Your task to perform on an android device: turn notification dots on Image 0: 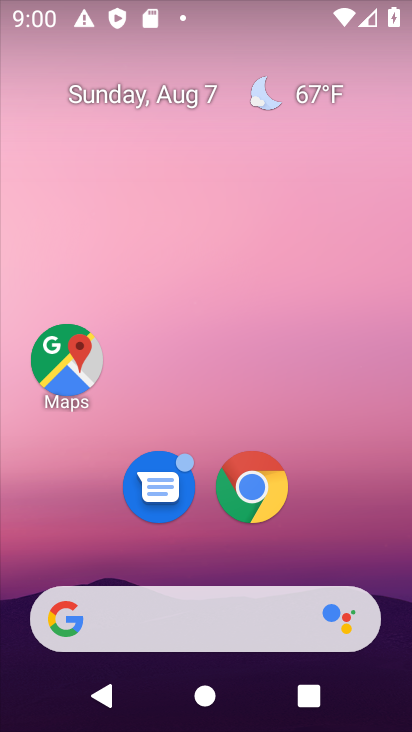
Step 0: drag from (379, 658) to (315, 16)
Your task to perform on an android device: turn notification dots on Image 1: 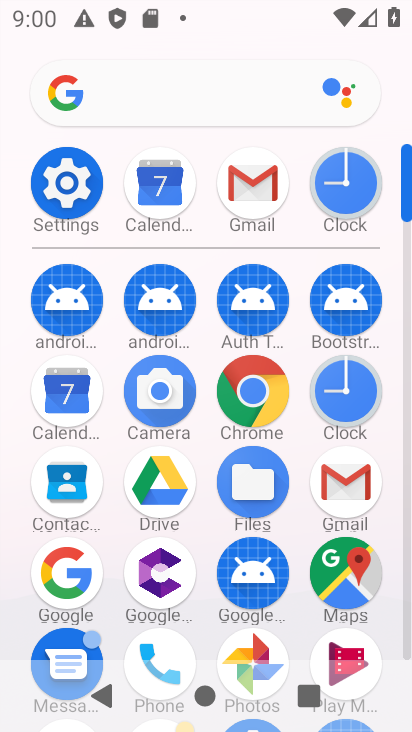
Step 1: click (61, 174)
Your task to perform on an android device: turn notification dots on Image 2: 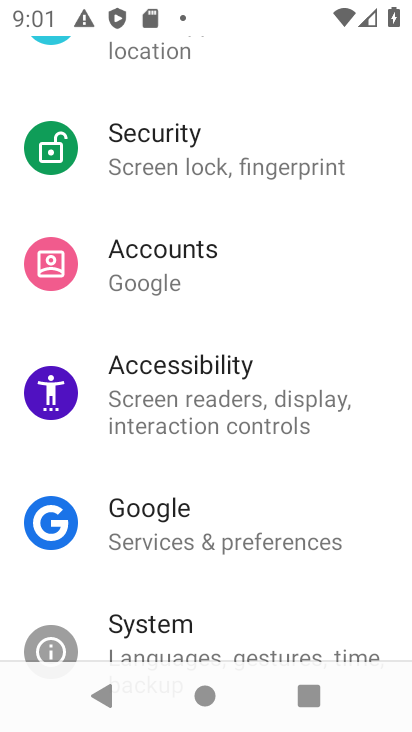
Step 2: drag from (332, 615) to (277, 146)
Your task to perform on an android device: turn notification dots on Image 3: 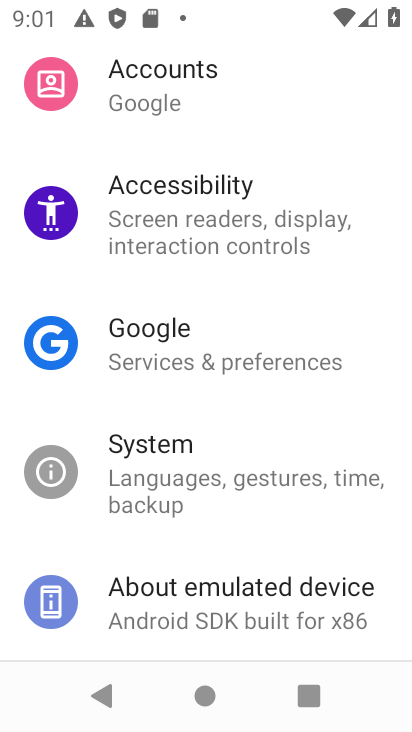
Step 3: drag from (269, 157) to (314, 708)
Your task to perform on an android device: turn notification dots on Image 4: 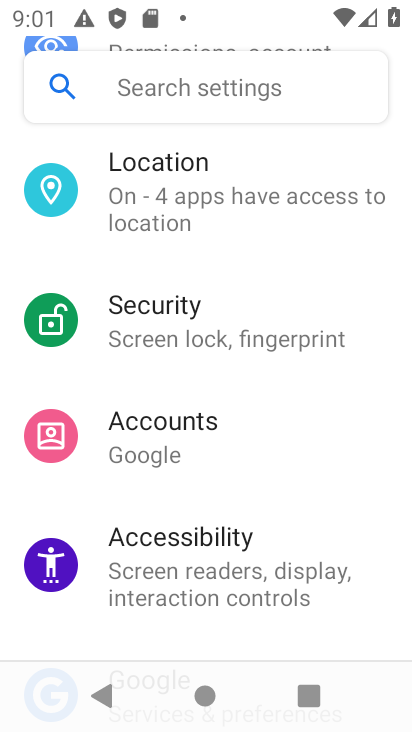
Step 4: drag from (274, 151) to (372, 586)
Your task to perform on an android device: turn notification dots on Image 5: 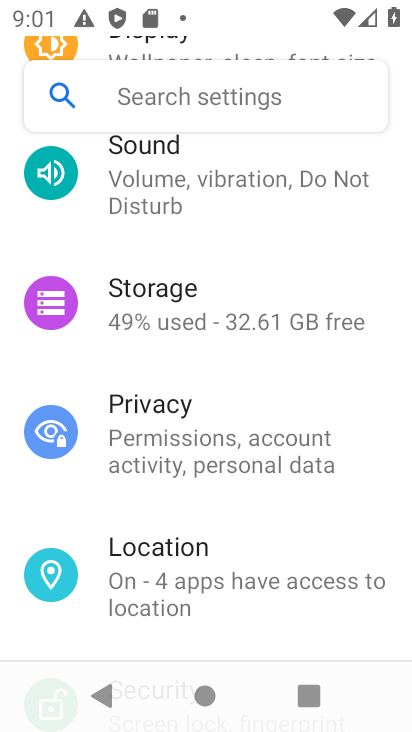
Step 5: drag from (275, 139) to (307, 588)
Your task to perform on an android device: turn notification dots on Image 6: 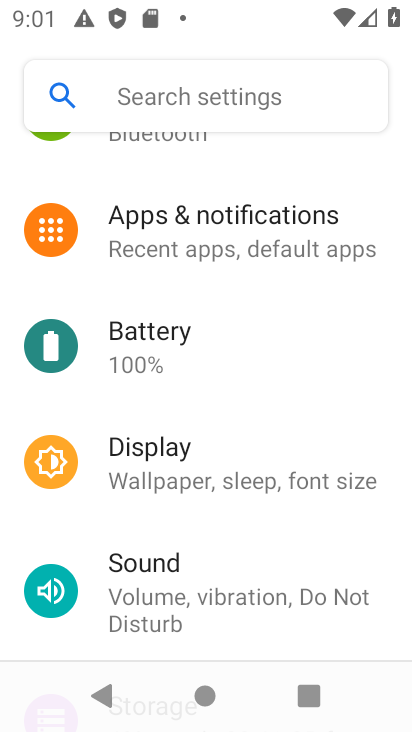
Step 6: click (206, 210)
Your task to perform on an android device: turn notification dots on Image 7: 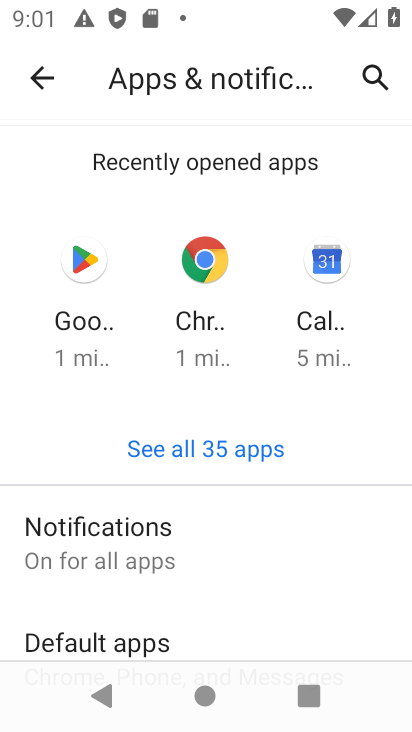
Step 7: click (99, 538)
Your task to perform on an android device: turn notification dots on Image 8: 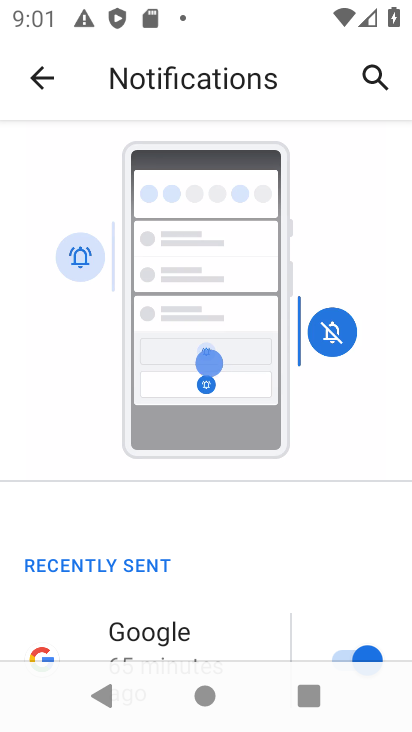
Step 8: drag from (271, 586) to (241, 206)
Your task to perform on an android device: turn notification dots on Image 9: 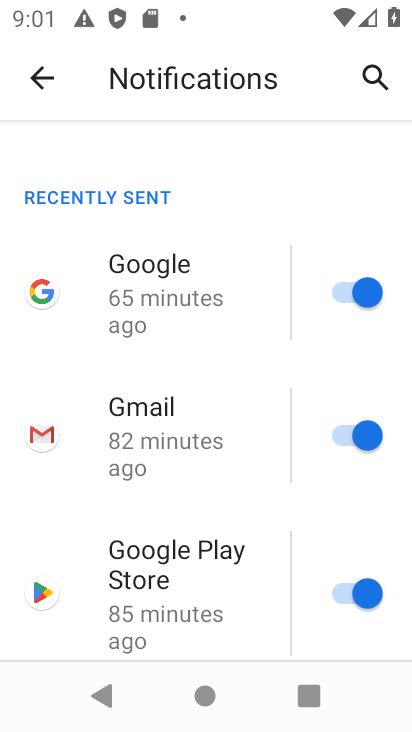
Step 9: drag from (263, 614) to (243, 214)
Your task to perform on an android device: turn notification dots on Image 10: 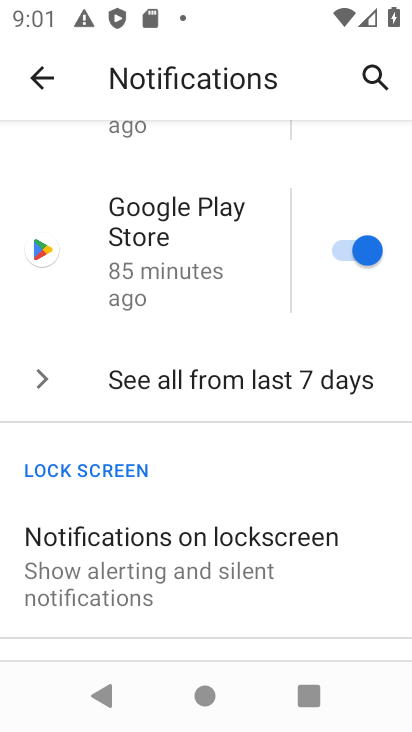
Step 10: drag from (229, 483) to (218, 242)
Your task to perform on an android device: turn notification dots on Image 11: 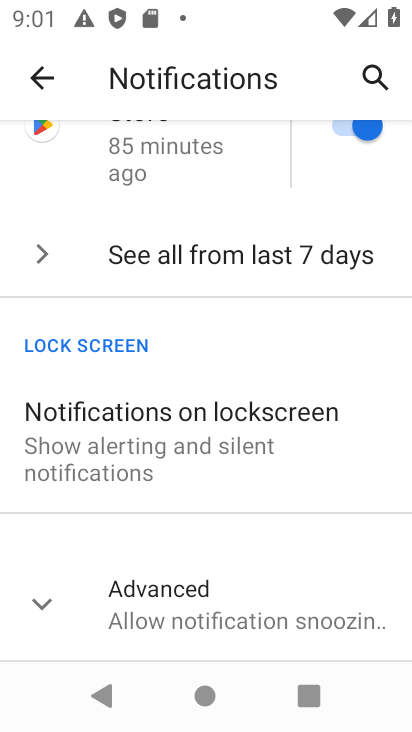
Step 11: drag from (248, 561) to (256, 238)
Your task to perform on an android device: turn notification dots on Image 12: 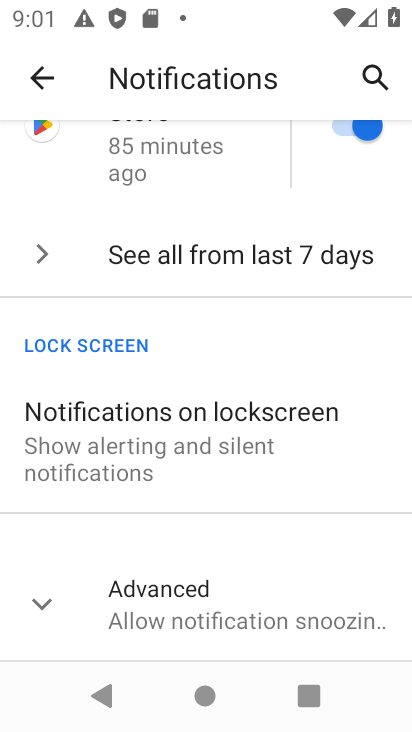
Step 12: click (46, 610)
Your task to perform on an android device: turn notification dots on Image 13: 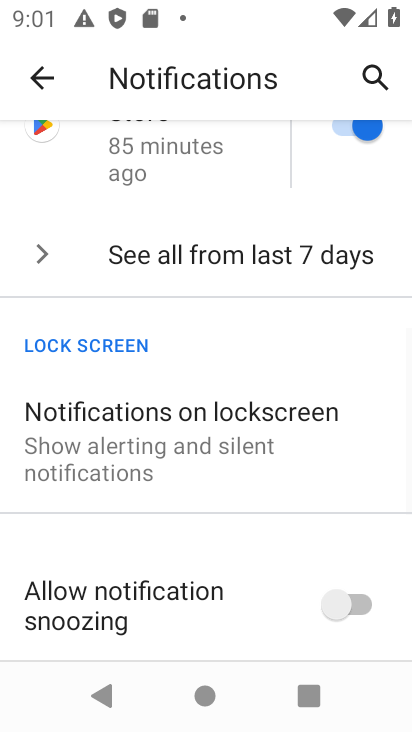
Step 13: task complete